Your task to perform on an android device: turn on sleep mode Image 0: 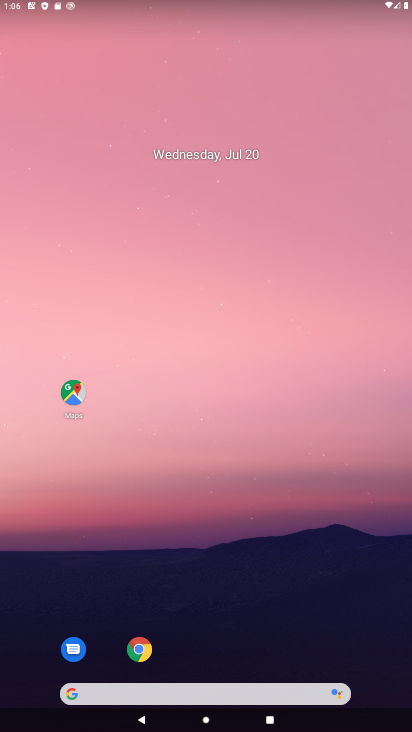
Step 0: press home button
Your task to perform on an android device: turn on sleep mode Image 1: 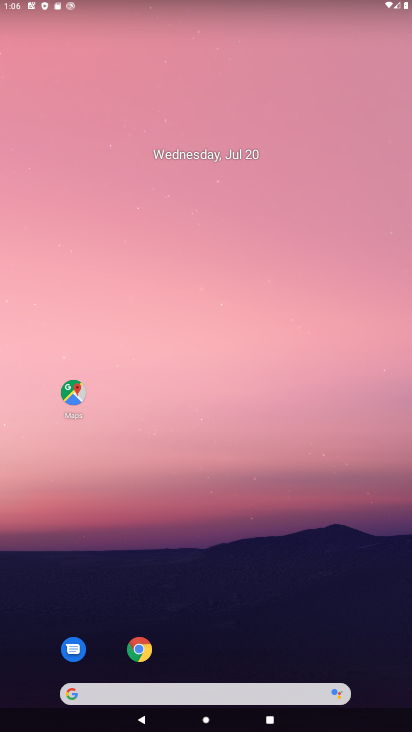
Step 1: drag from (286, 677) to (184, 209)
Your task to perform on an android device: turn on sleep mode Image 2: 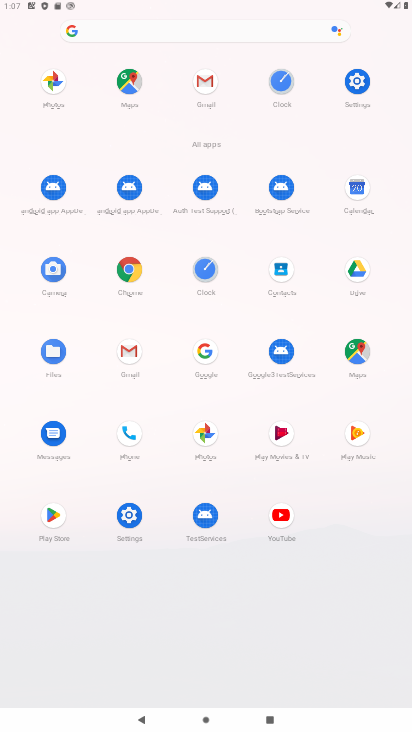
Step 2: click (350, 84)
Your task to perform on an android device: turn on sleep mode Image 3: 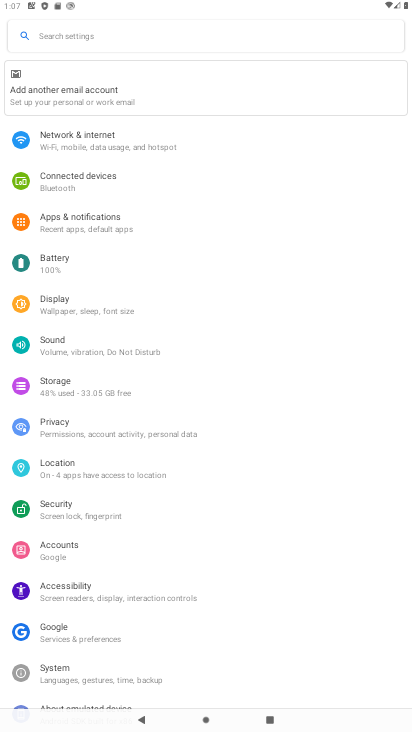
Step 3: click (42, 218)
Your task to perform on an android device: turn on sleep mode Image 4: 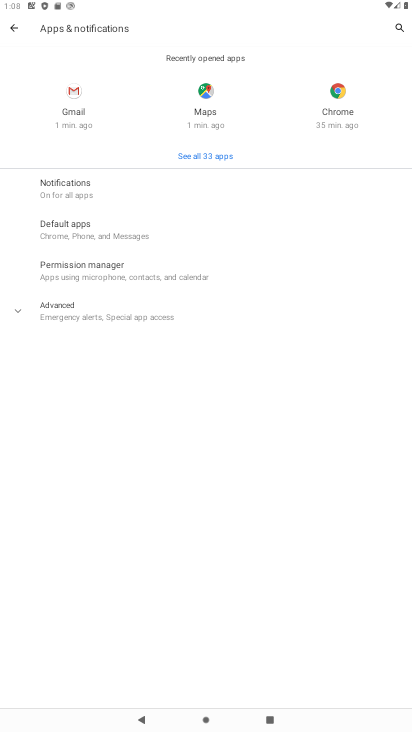
Step 4: press back button
Your task to perform on an android device: turn on sleep mode Image 5: 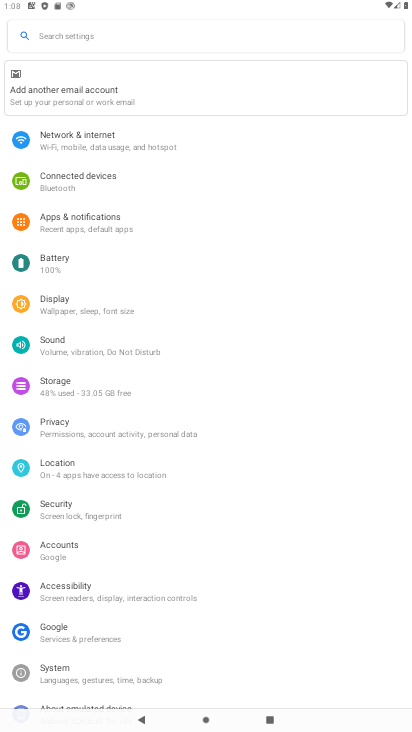
Step 5: click (58, 307)
Your task to perform on an android device: turn on sleep mode Image 6: 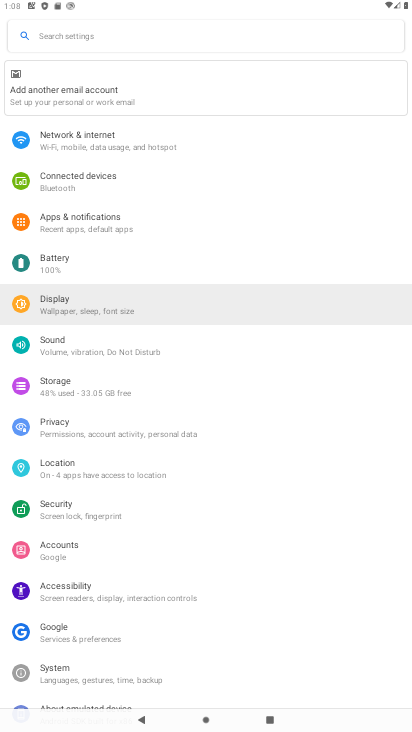
Step 6: task complete